Your task to perform on an android device: Open battery settings Image 0: 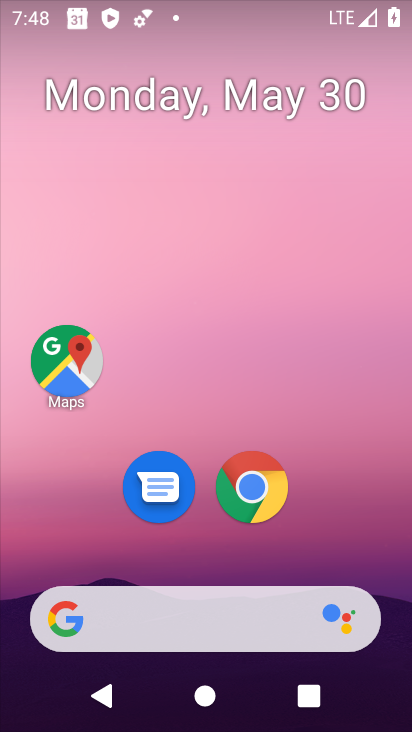
Step 0: drag from (378, 702) to (396, 158)
Your task to perform on an android device: Open battery settings Image 1: 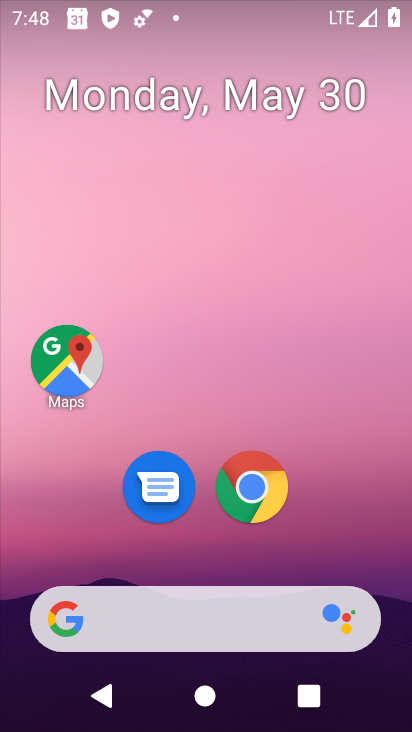
Step 1: drag from (372, 662) to (317, 57)
Your task to perform on an android device: Open battery settings Image 2: 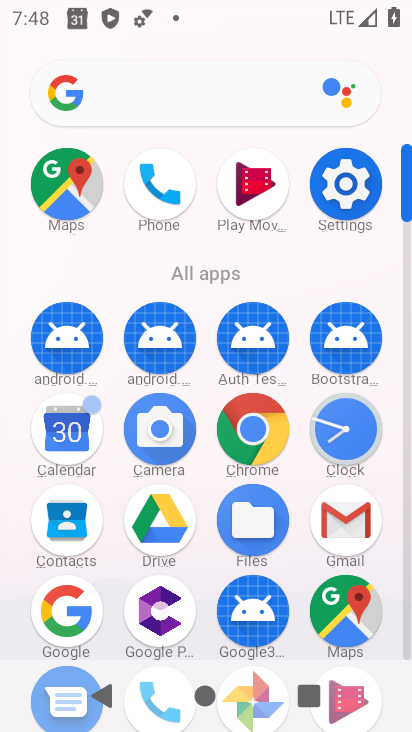
Step 2: click (330, 172)
Your task to perform on an android device: Open battery settings Image 3: 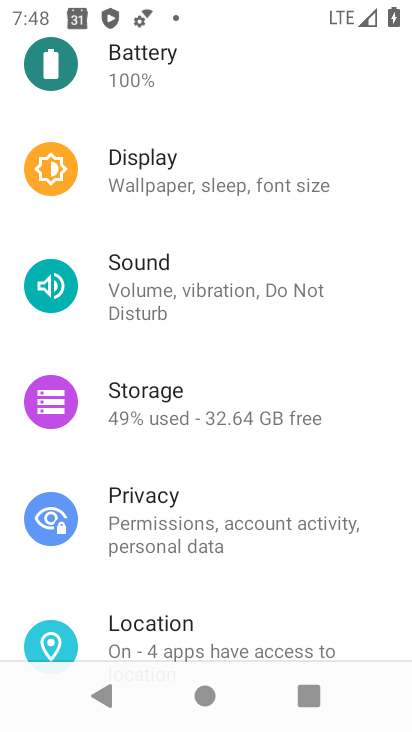
Step 3: click (127, 72)
Your task to perform on an android device: Open battery settings Image 4: 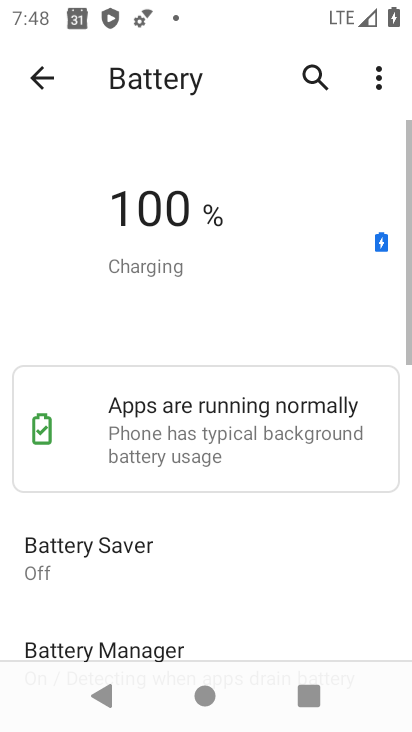
Step 4: task complete